Your task to perform on an android device: Open network settings Image 0: 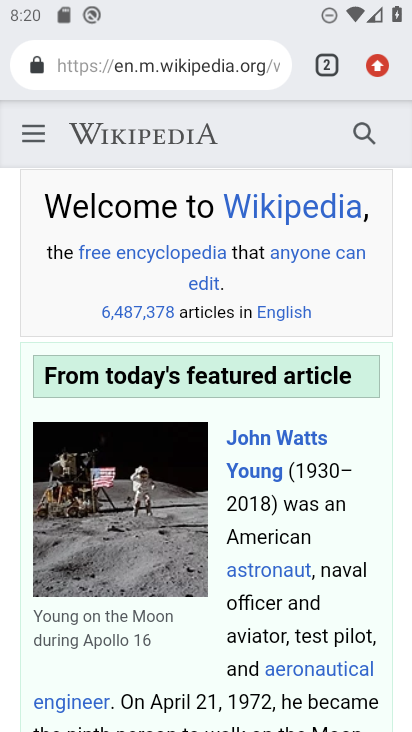
Step 0: press back button
Your task to perform on an android device: Open network settings Image 1: 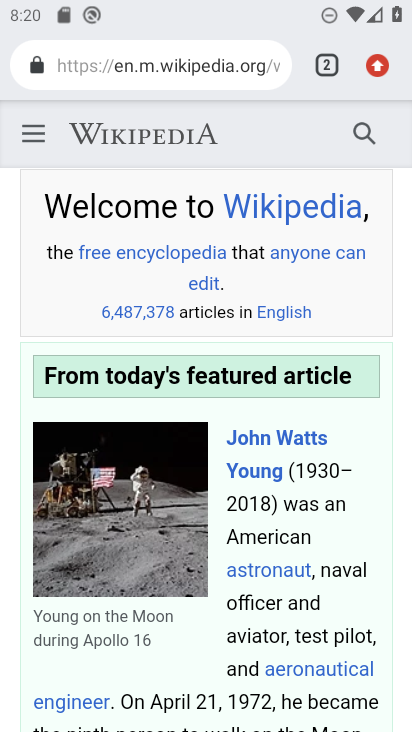
Step 1: press back button
Your task to perform on an android device: Open network settings Image 2: 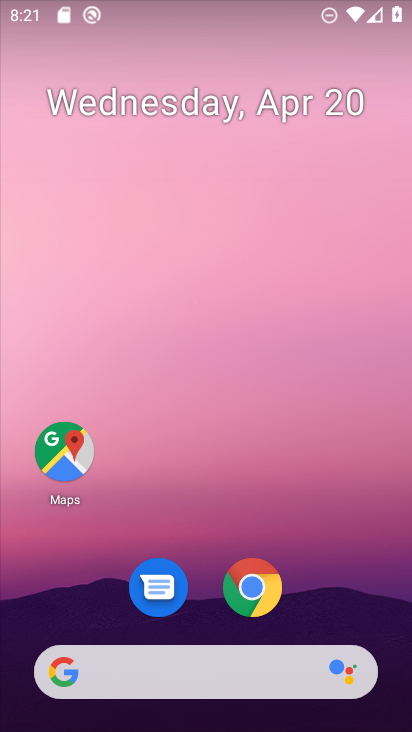
Step 2: drag from (310, 582) to (300, 108)
Your task to perform on an android device: Open network settings Image 3: 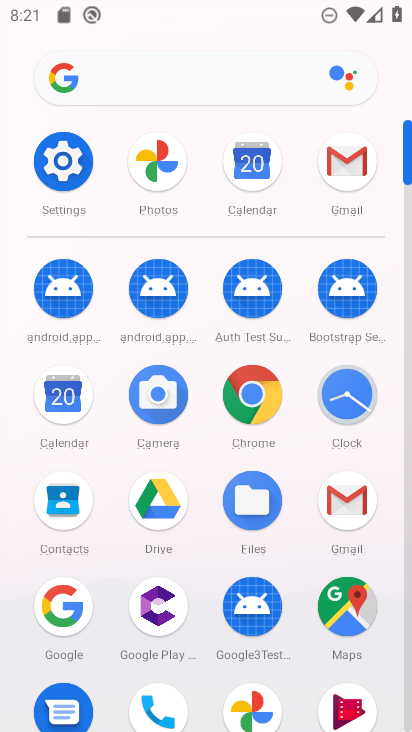
Step 3: click (86, 188)
Your task to perform on an android device: Open network settings Image 4: 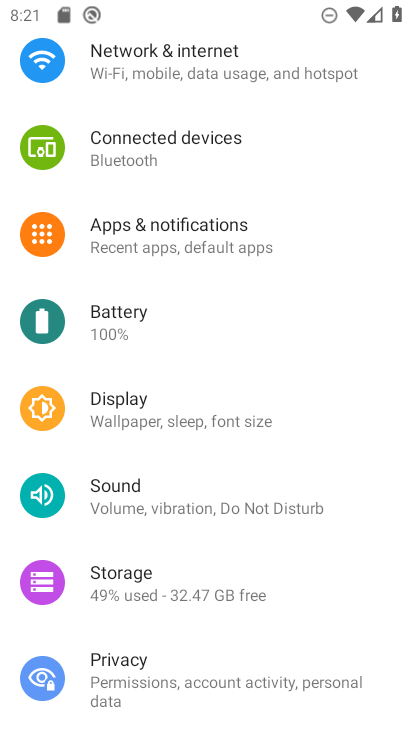
Step 4: drag from (278, 199) to (243, 557)
Your task to perform on an android device: Open network settings Image 5: 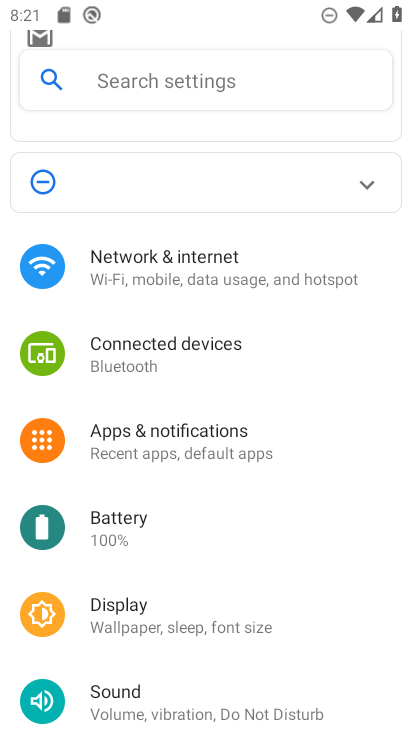
Step 5: click (199, 284)
Your task to perform on an android device: Open network settings Image 6: 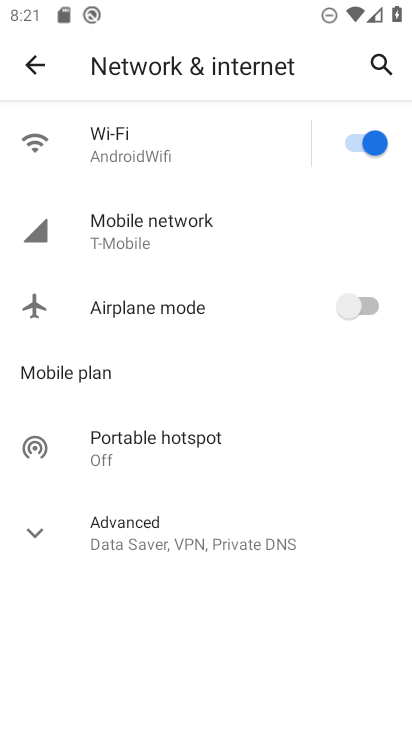
Step 6: task complete